Your task to perform on an android device: create a new album in the google photos Image 0: 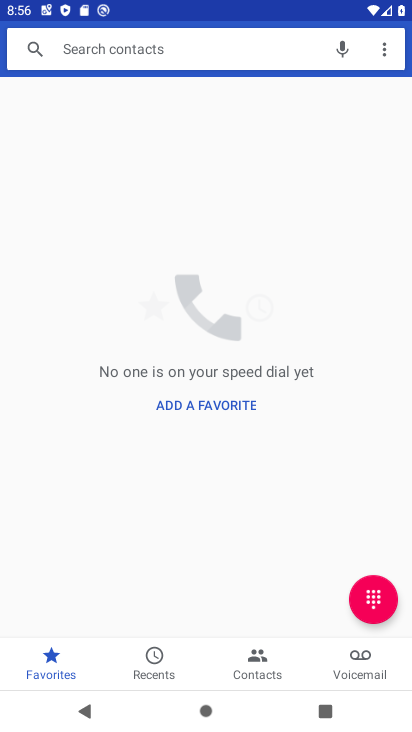
Step 0: press back button
Your task to perform on an android device: create a new album in the google photos Image 1: 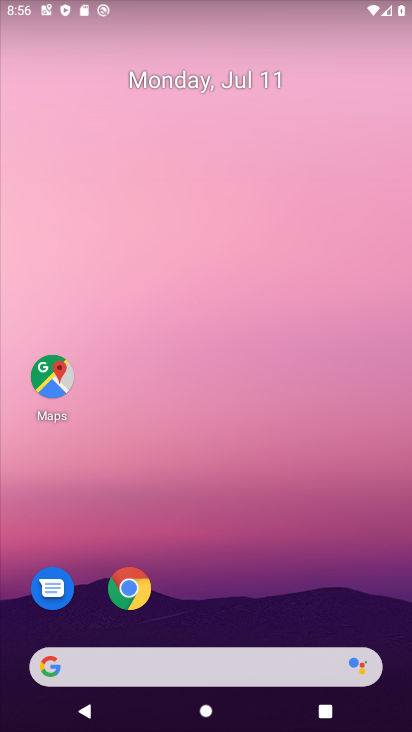
Step 1: click (317, 2)
Your task to perform on an android device: create a new album in the google photos Image 2: 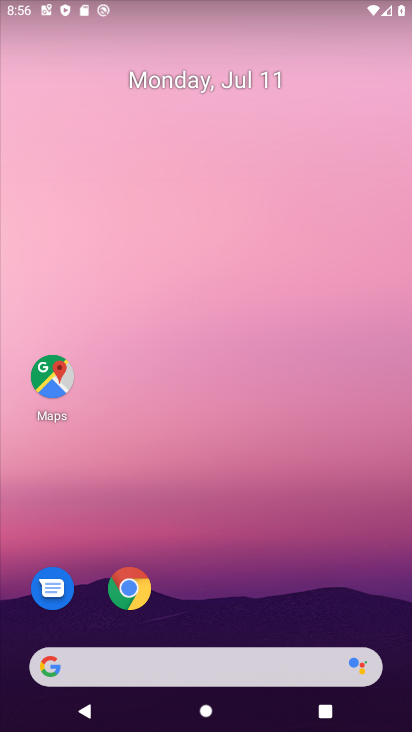
Step 2: drag from (267, 529) to (331, 78)
Your task to perform on an android device: create a new album in the google photos Image 3: 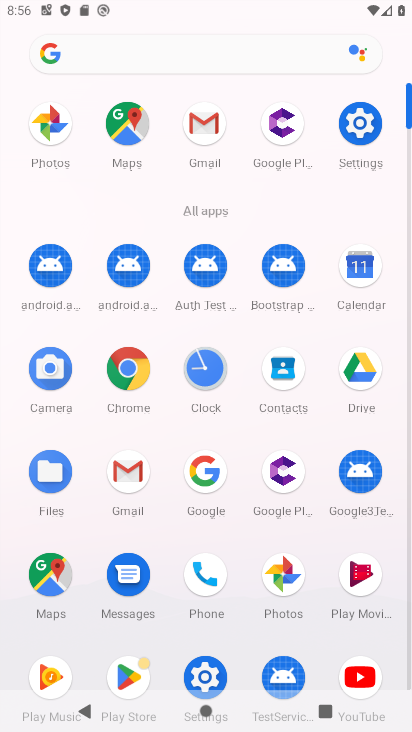
Step 3: click (276, 567)
Your task to perform on an android device: create a new album in the google photos Image 4: 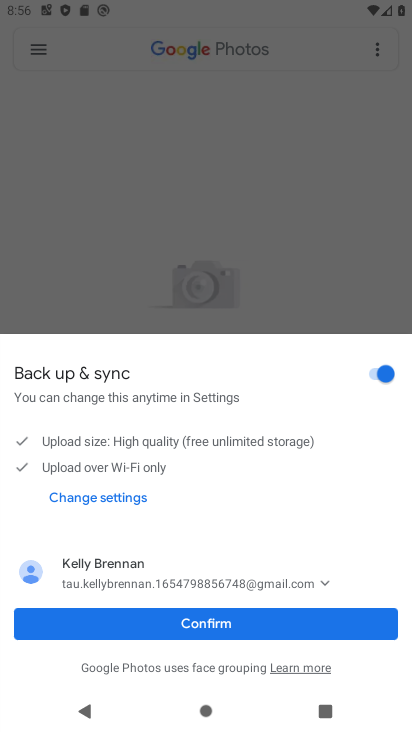
Step 4: click (211, 623)
Your task to perform on an android device: create a new album in the google photos Image 5: 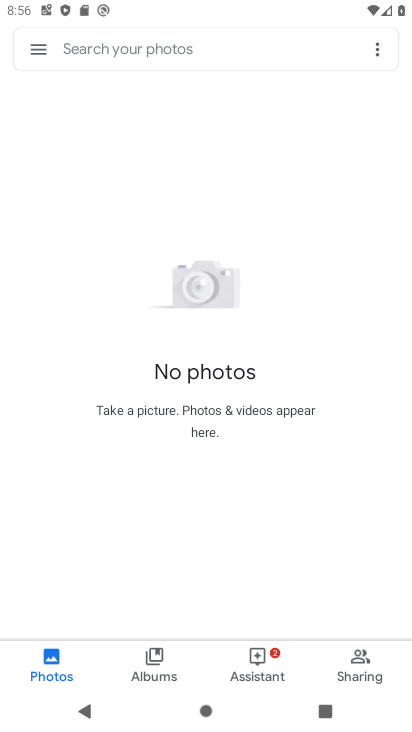
Step 5: click (381, 47)
Your task to perform on an android device: create a new album in the google photos Image 6: 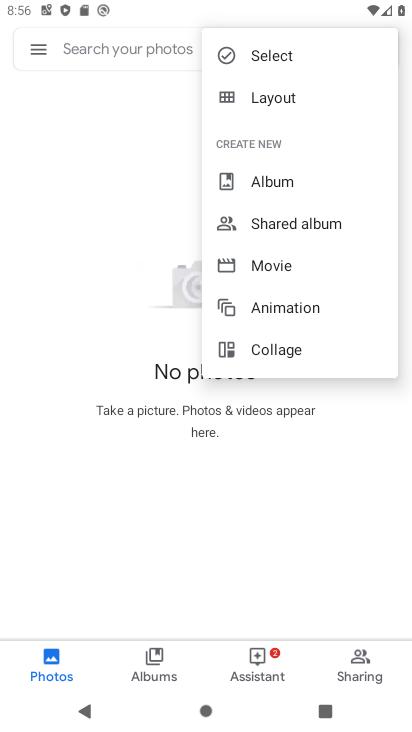
Step 6: click (240, 181)
Your task to perform on an android device: create a new album in the google photos Image 7: 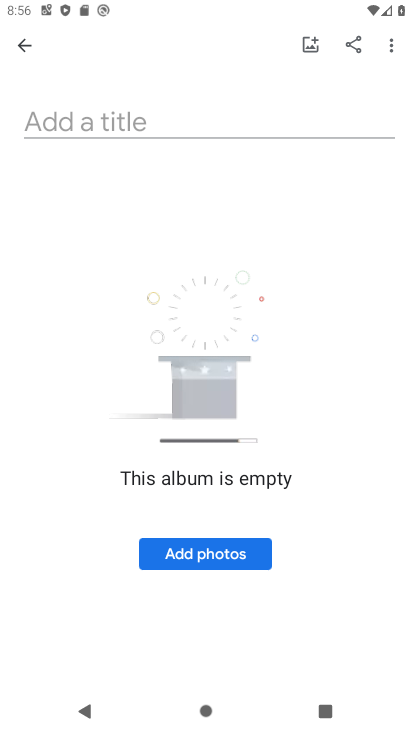
Step 7: click (103, 124)
Your task to perform on an android device: create a new album in the google photos Image 8: 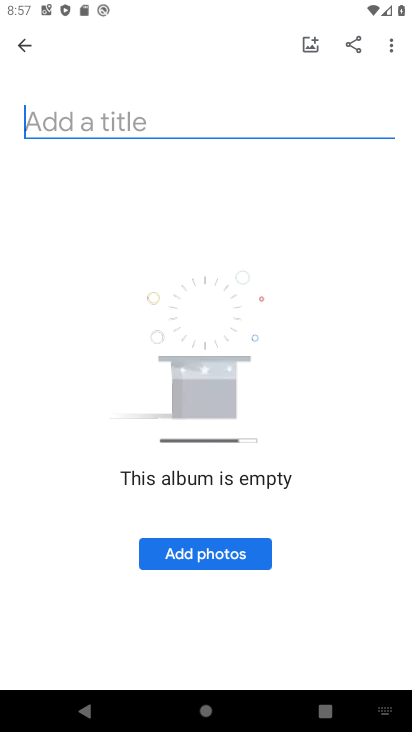
Step 8: type "cvcdvcdv"
Your task to perform on an android device: create a new album in the google photos Image 9: 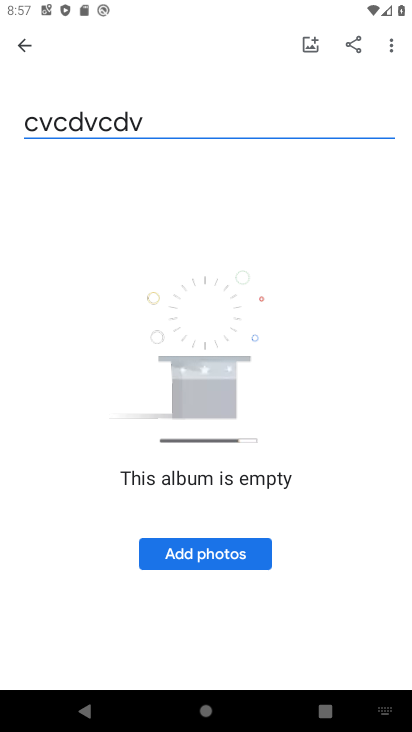
Step 9: click (164, 515)
Your task to perform on an android device: create a new album in the google photos Image 10: 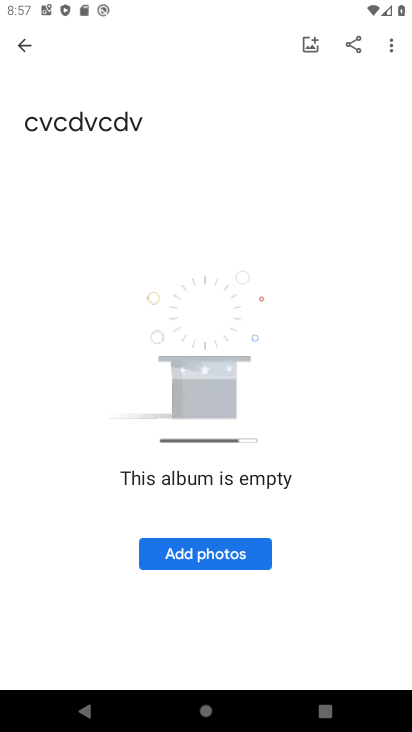
Step 10: click (164, 547)
Your task to perform on an android device: create a new album in the google photos Image 11: 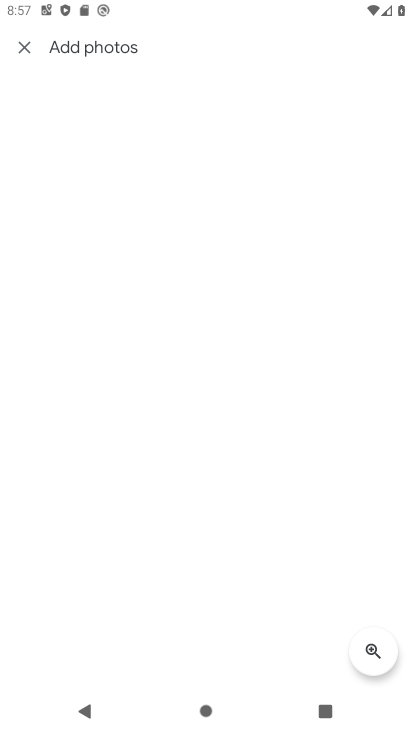
Step 11: drag from (56, 78) to (96, 723)
Your task to perform on an android device: create a new album in the google photos Image 12: 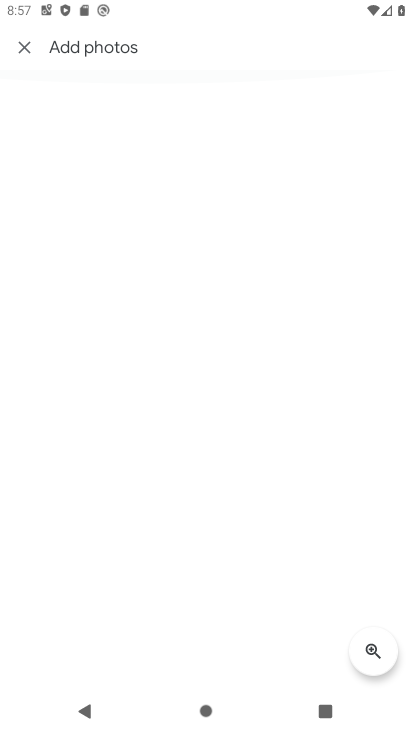
Step 12: drag from (166, 420) to (172, 149)
Your task to perform on an android device: create a new album in the google photos Image 13: 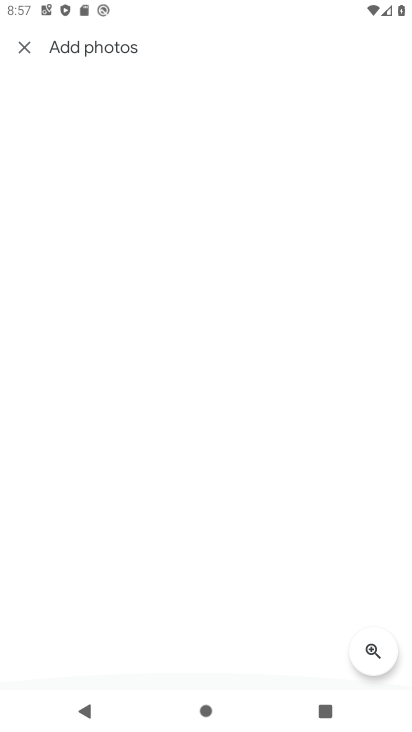
Step 13: click (28, 39)
Your task to perform on an android device: create a new album in the google photos Image 14: 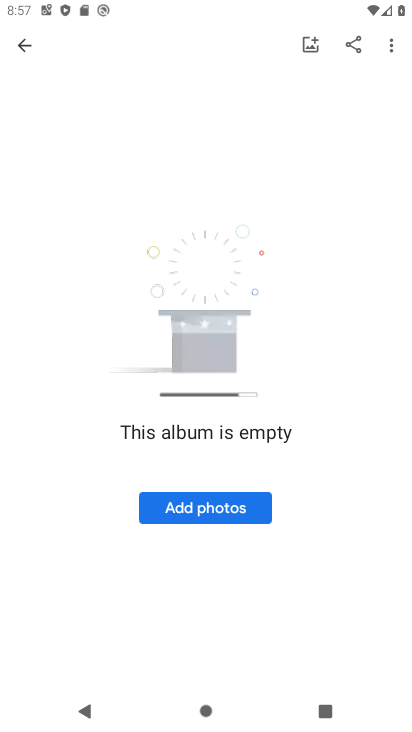
Step 14: click (213, 519)
Your task to perform on an android device: create a new album in the google photos Image 15: 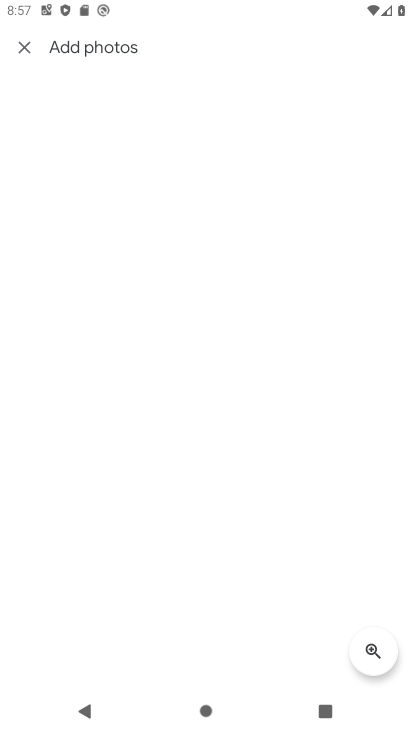
Step 15: task complete